Your task to perform on an android device: Clear all items from cart on costco.com. Add logitech g pro to the cart on costco.com, then select checkout. Image 0: 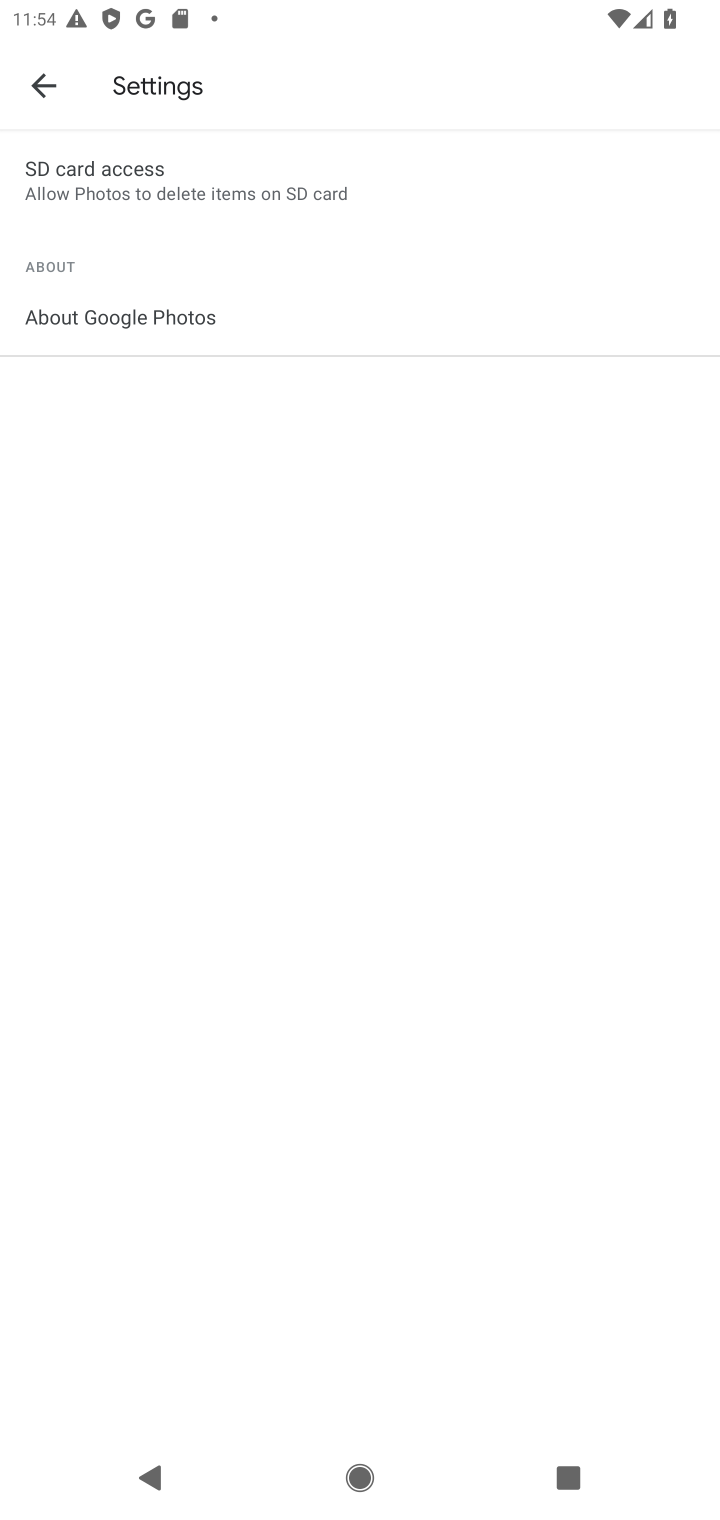
Step 0: press home button
Your task to perform on an android device: Clear all items from cart on costco.com. Add logitech g pro to the cart on costco.com, then select checkout. Image 1: 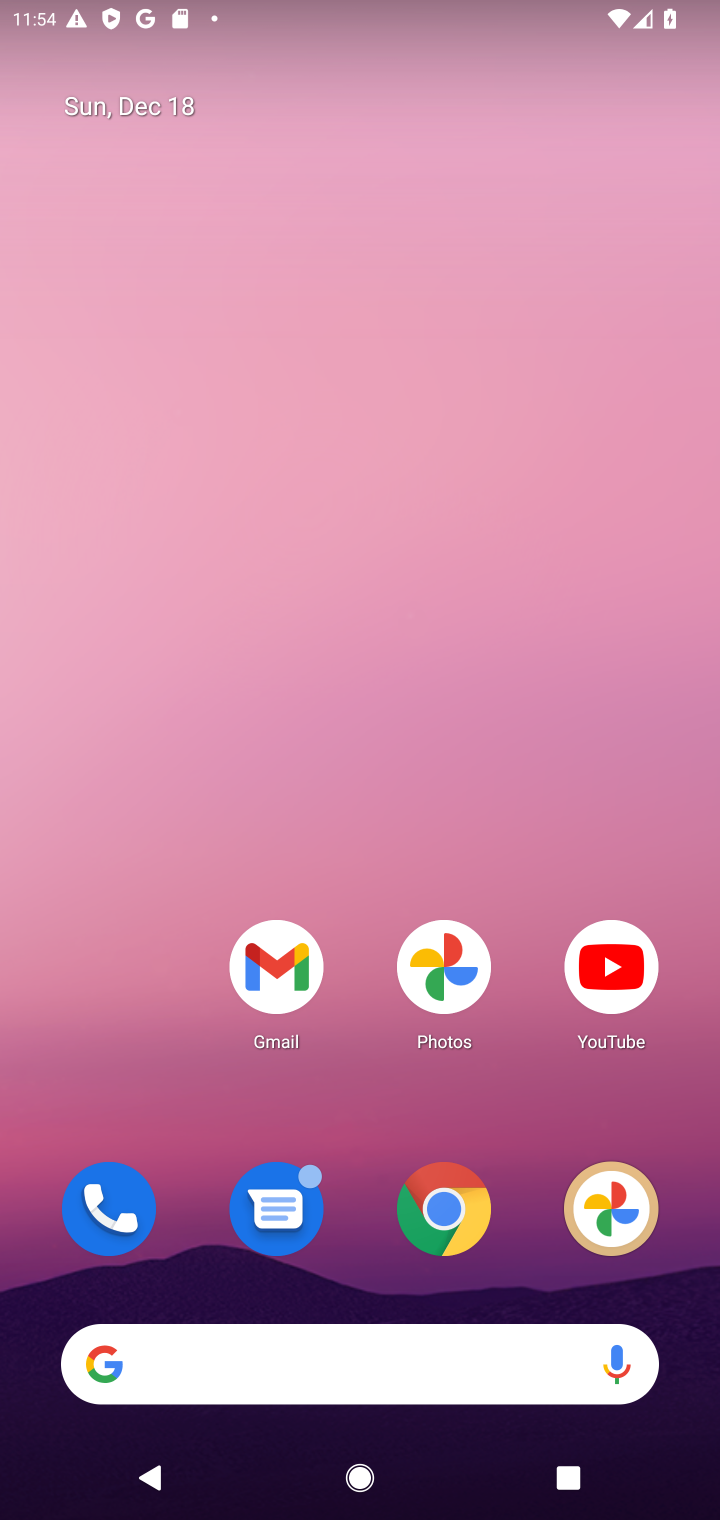
Step 1: click (459, 1209)
Your task to perform on an android device: Clear all items from cart on costco.com. Add logitech g pro to the cart on costco.com, then select checkout. Image 2: 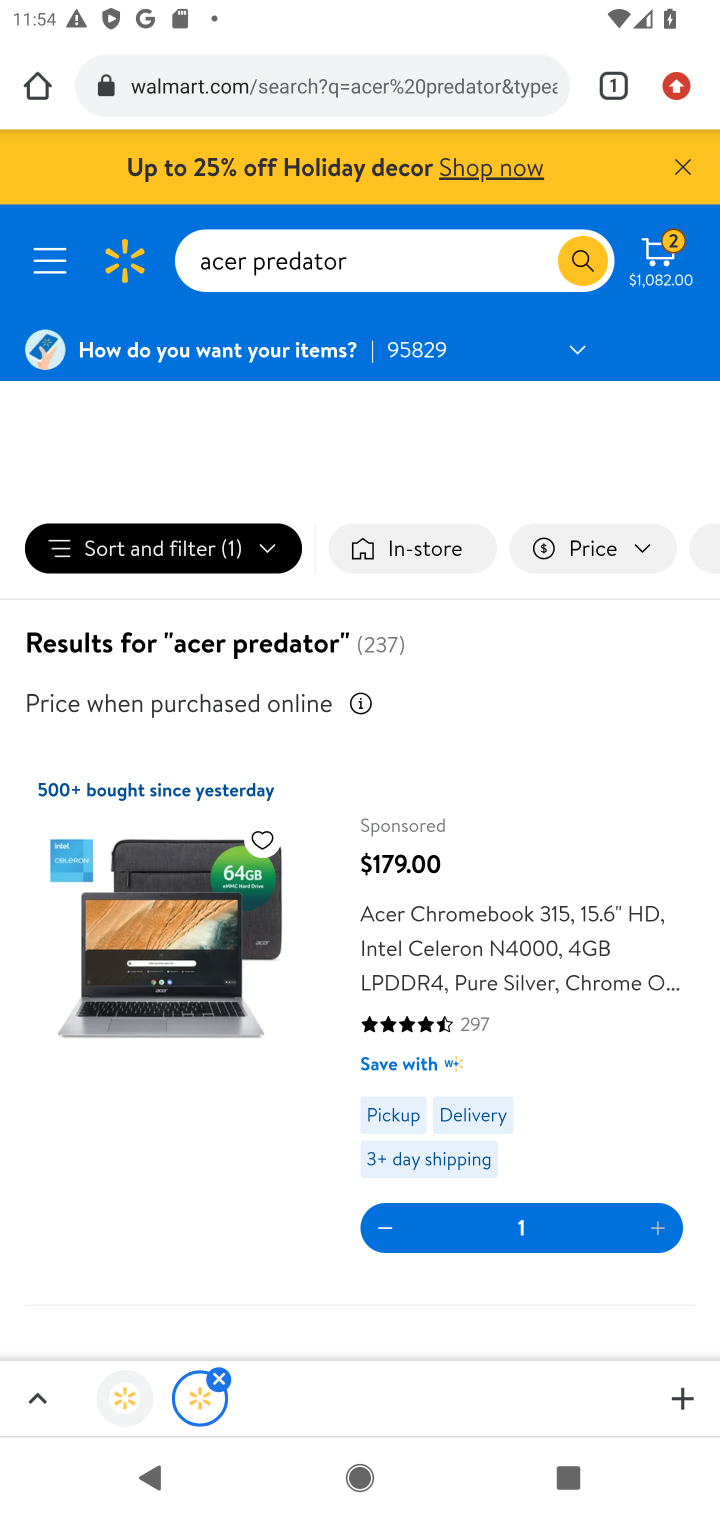
Step 2: click (321, 90)
Your task to perform on an android device: Clear all items from cart on costco.com. Add logitech g pro to the cart on costco.com, then select checkout. Image 3: 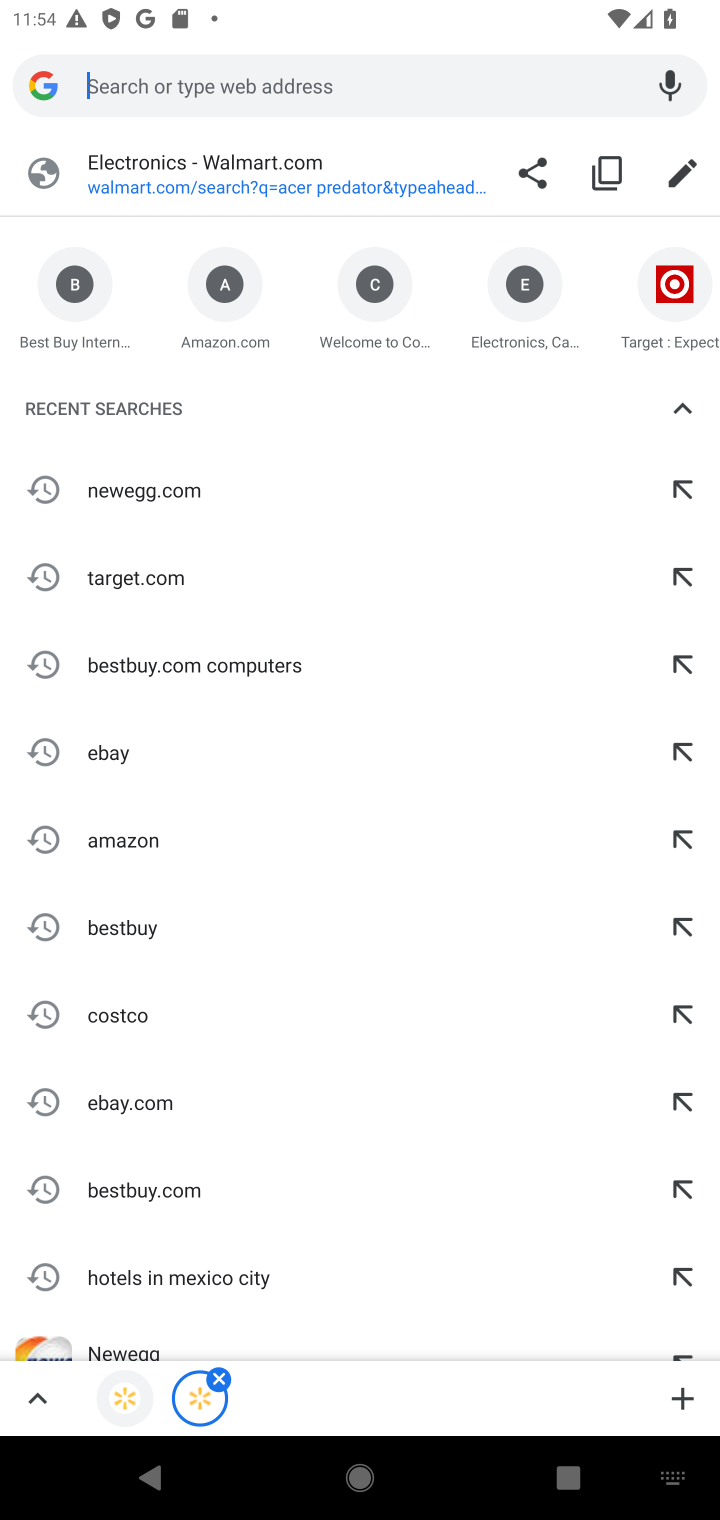
Step 3: click (170, 1012)
Your task to perform on an android device: Clear all items from cart on costco.com. Add logitech g pro to the cart on costco.com, then select checkout. Image 4: 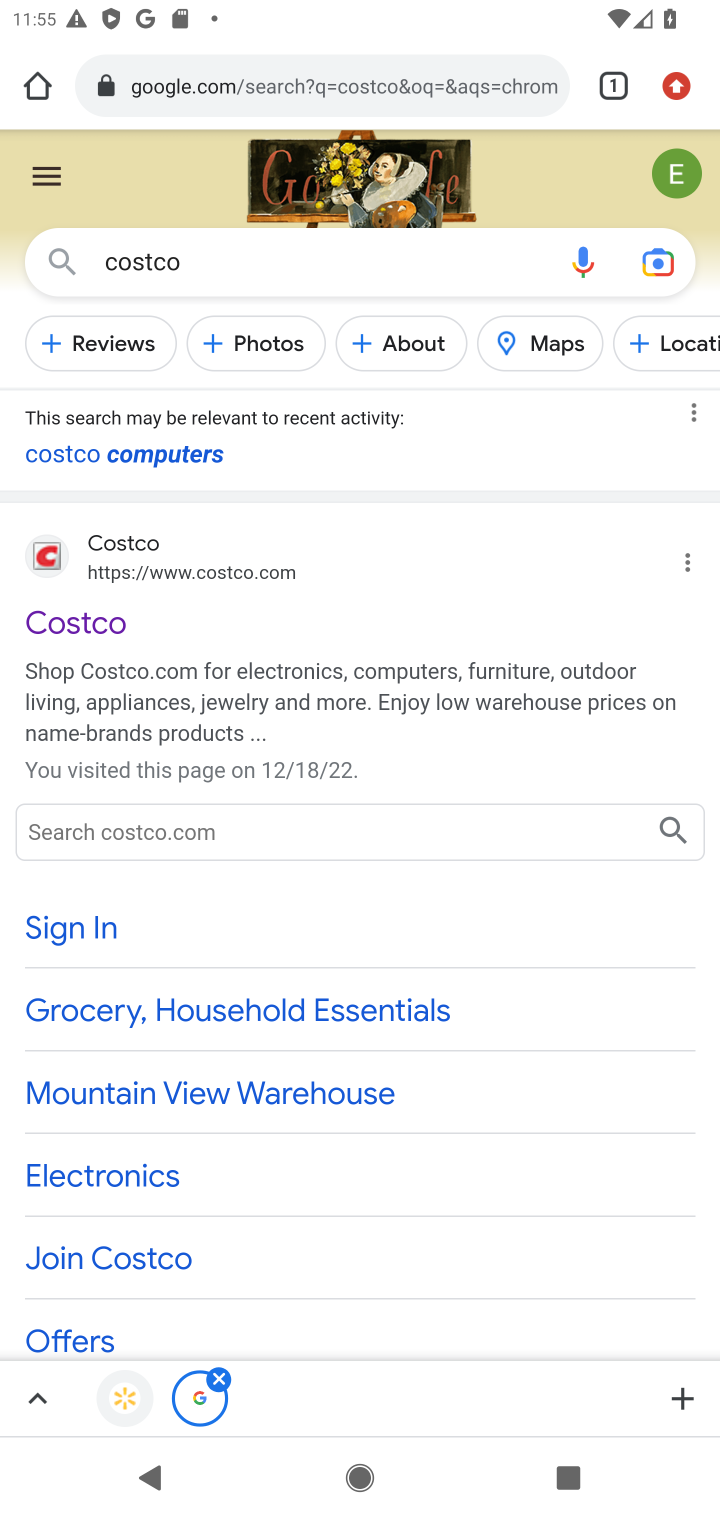
Step 4: click (115, 619)
Your task to perform on an android device: Clear all items from cart on costco.com. Add logitech g pro to the cart on costco.com, then select checkout. Image 5: 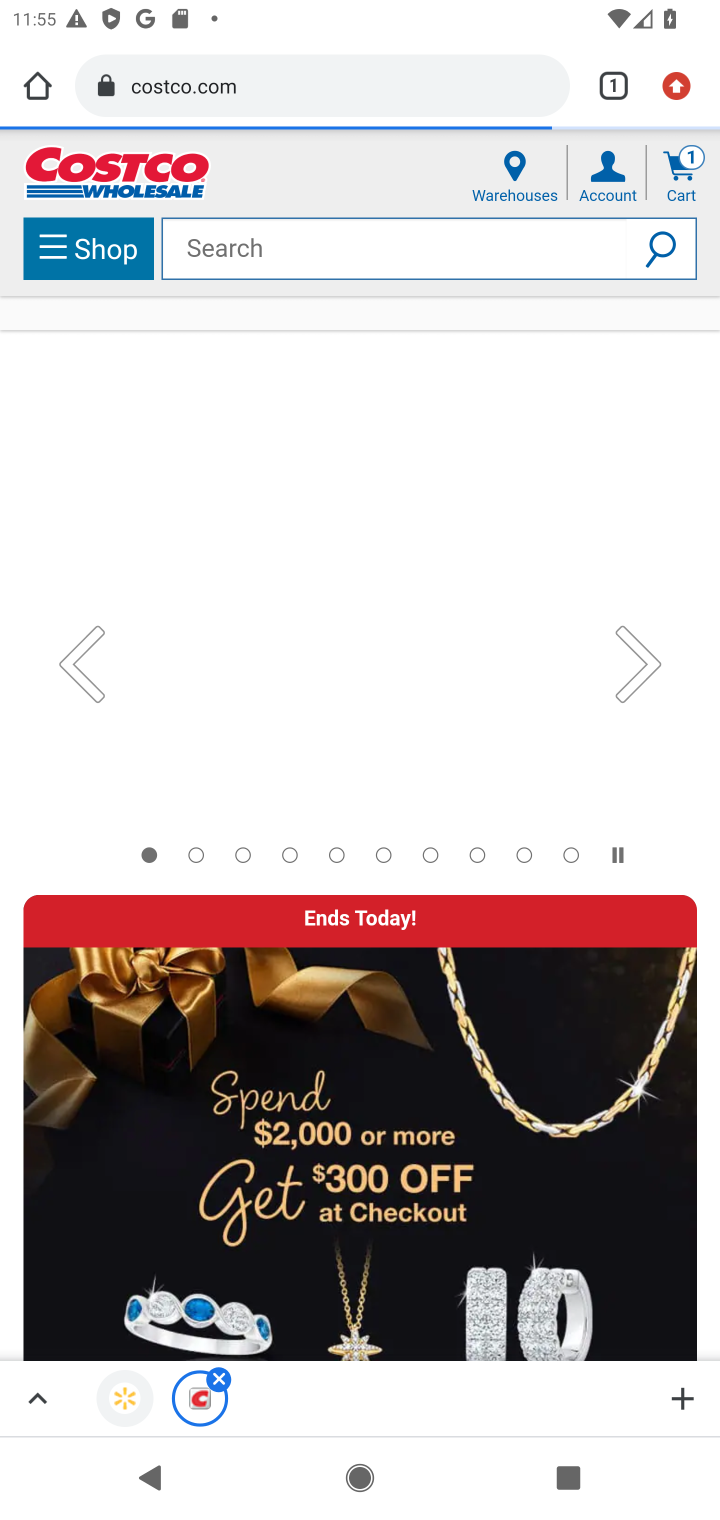
Step 5: click (510, 254)
Your task to perform on an android device: Clear all items from cart on costco.com. Add logitech g pro to the cart on costco.com, then select checkout. Image 6: 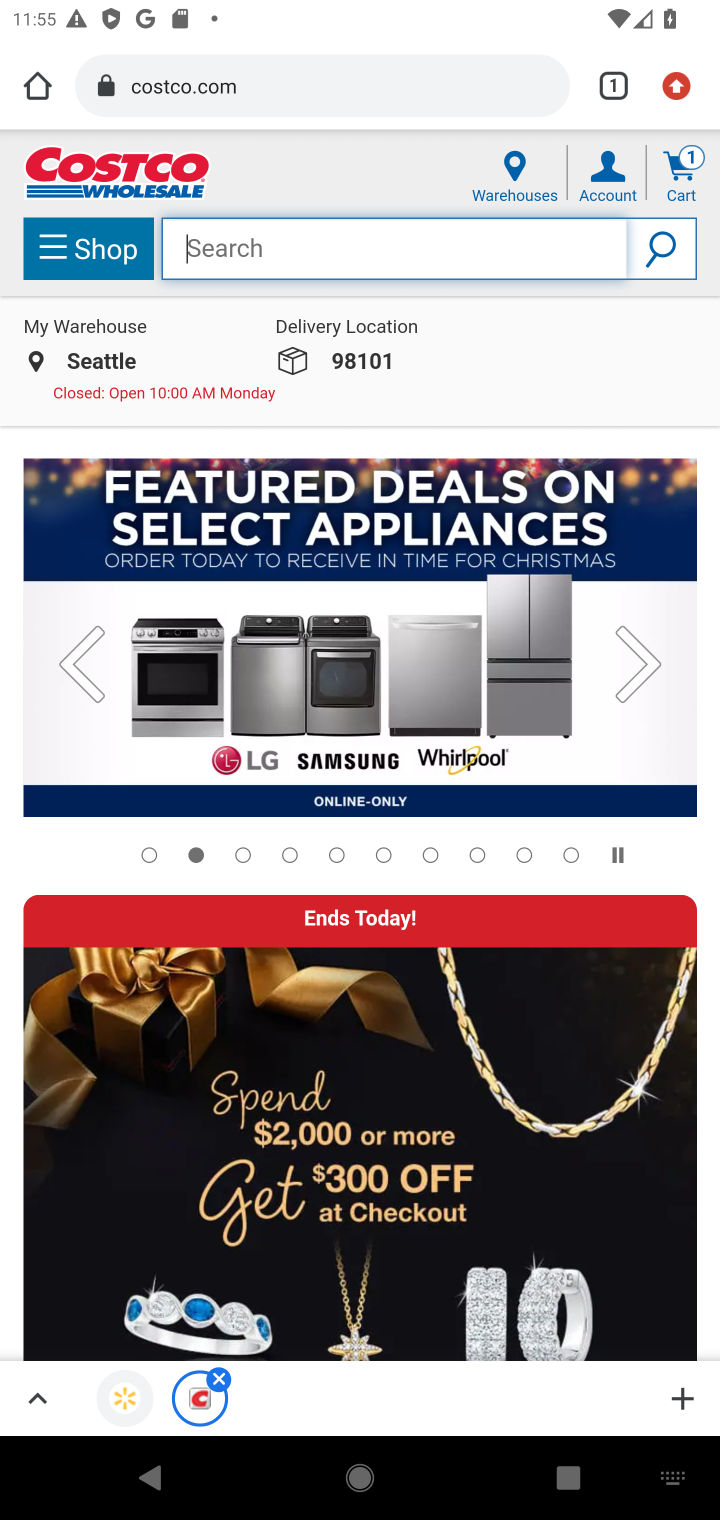
Step 6: type " logitech g pro"
Your task to perform on an android device: Clear all items from cart on costco.com. Add logitech g pro to the cart on costco.com, then select checkout. Image 7: 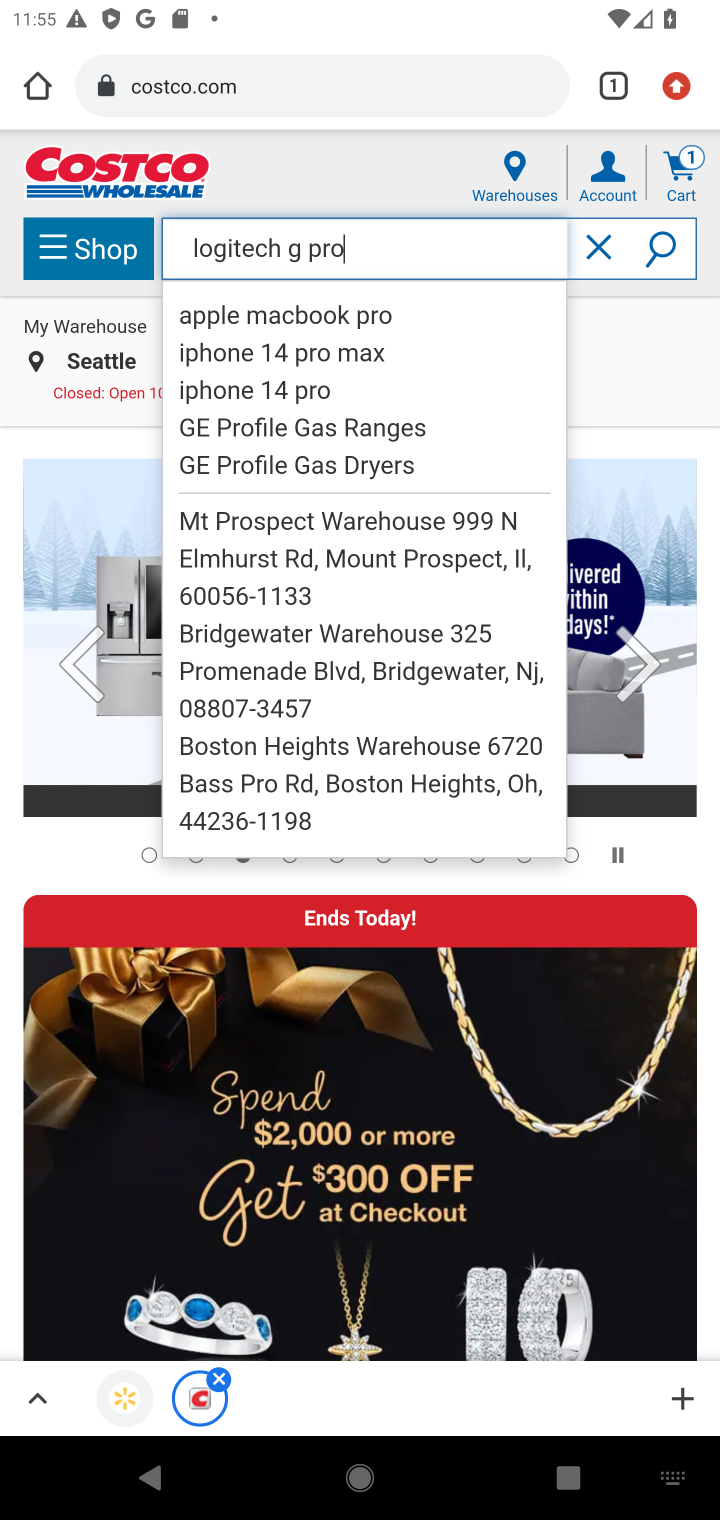
Step 7: click (263, 322)
Your task to perform on an android device: Clear all items from cart on costco.com. Add logitech g pro to the cart on costco.com, then select checkout. Image 8: 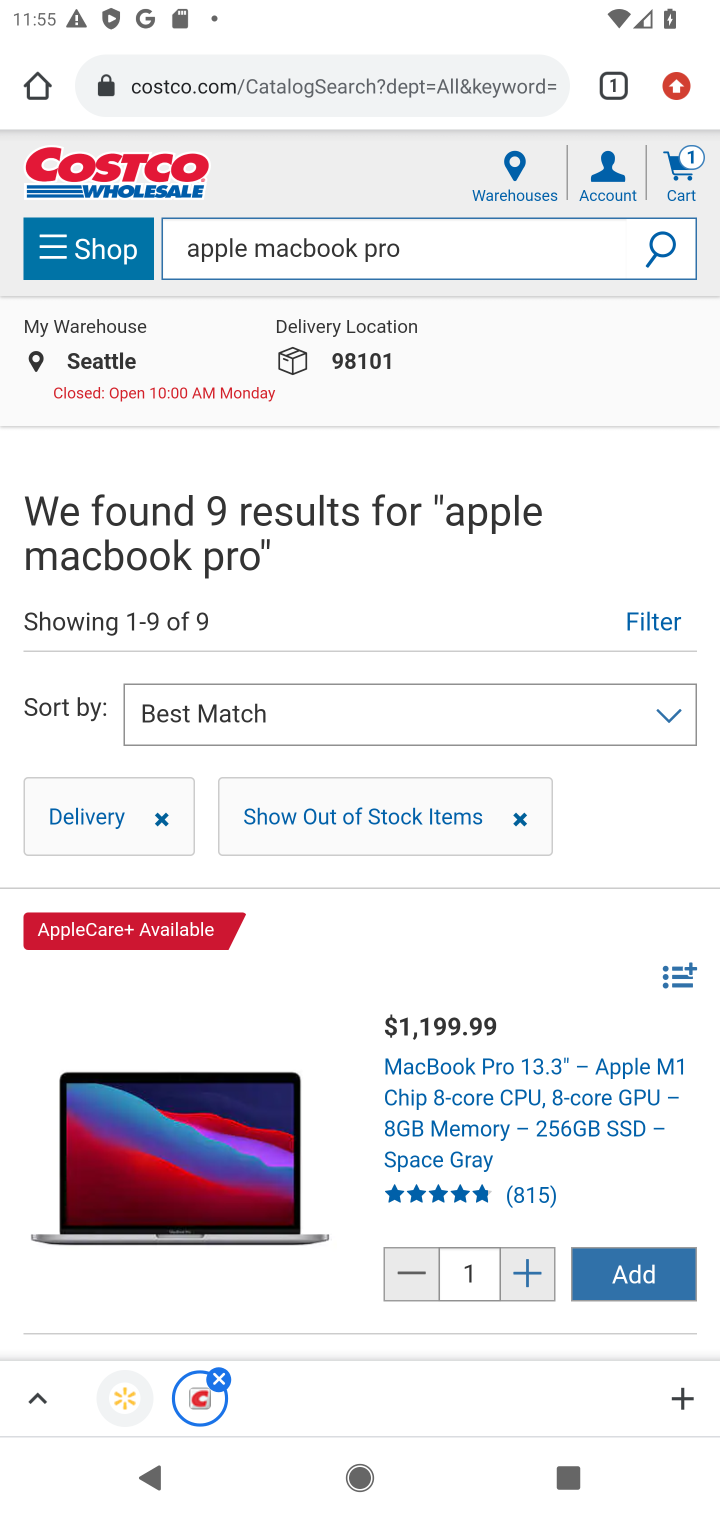
Step 8: task complete